Your task to perform on an android device: Go to display settings Image 0: 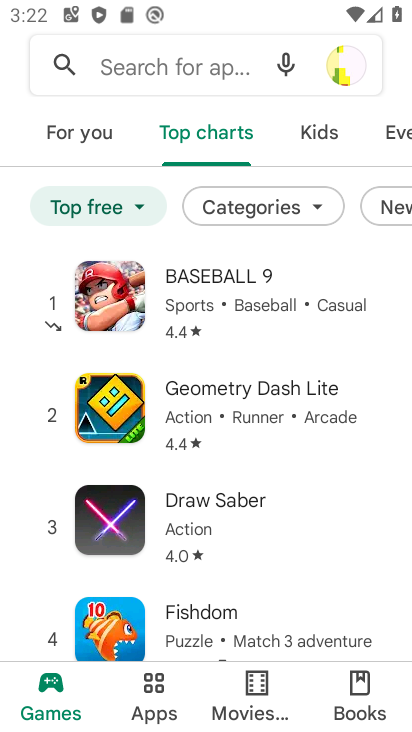
Step 0: press home button
Your task to perform on an android device: Go to display settings Image 1: 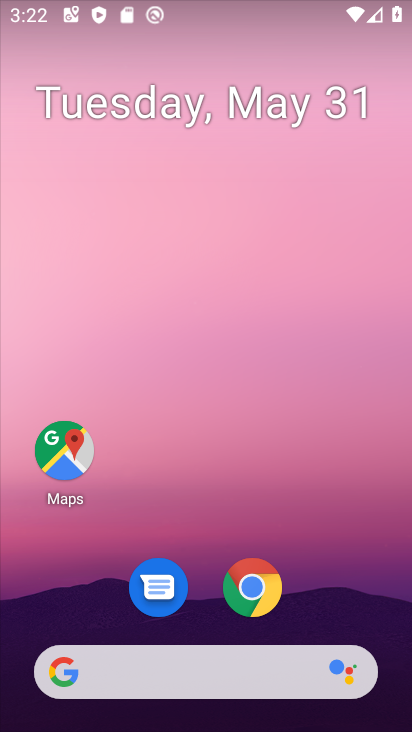
Step 1: drag from (336, 619) to (310, 125)
Your task to perform on an android device: Go to display settings Image 2: 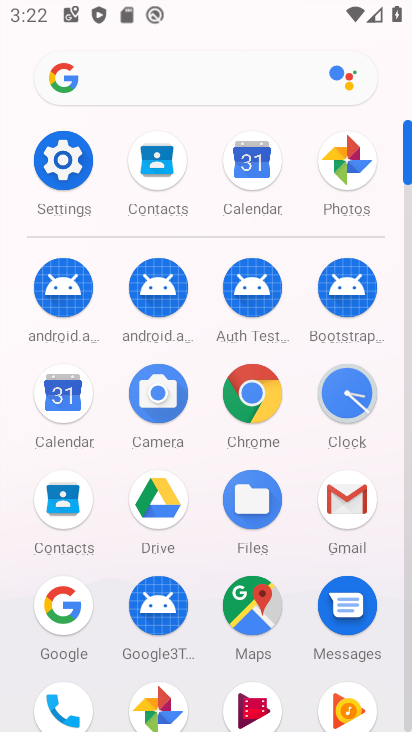
Step 2: click (57, 153)
Your task to perform on an android device: Go to display settings Image 3: 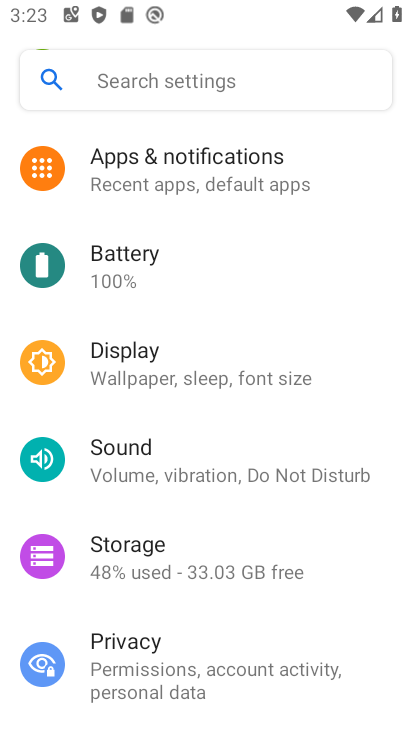
Step 3: click (132, 370)
Your task to perform on an android device: Go to display settings Image 4: 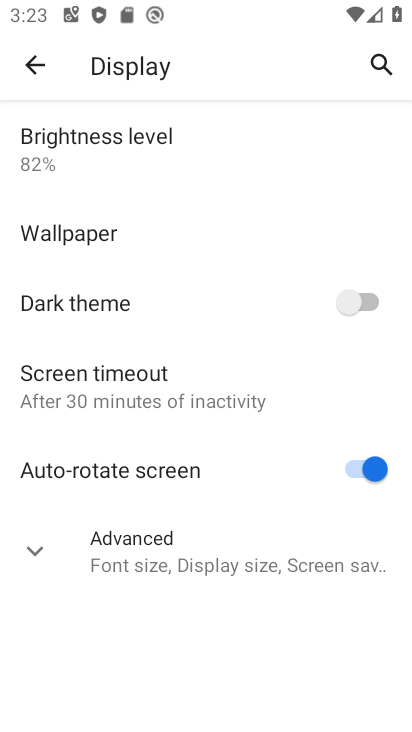
Step 4: task complete